Your task to perform on an android device: set default search engine in the chrome app Image 0: 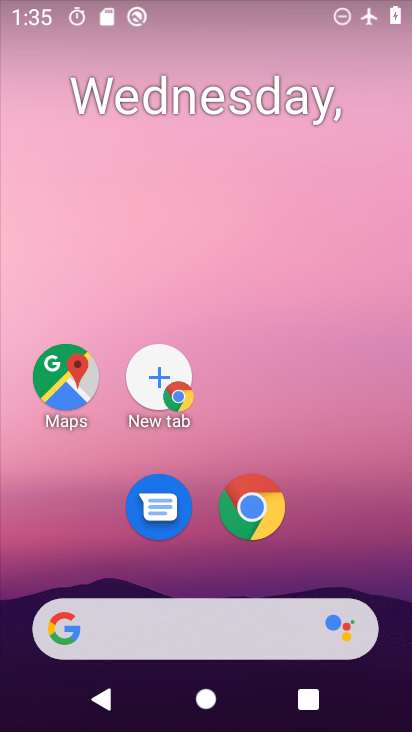
Step 0: drag from (373, 494) to (380, 117)
Your task to perform on an android device: set default search engine in the chrome app Image 1: 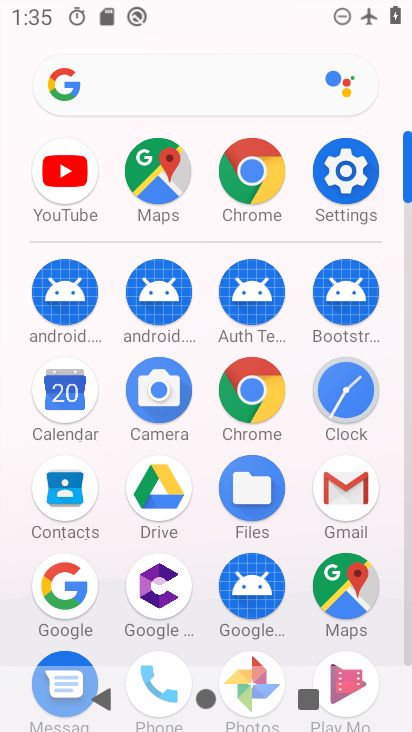
Step 1: click (222, 196)
Your task to perform on an android device: set default search engine in the chrome app Image 2: 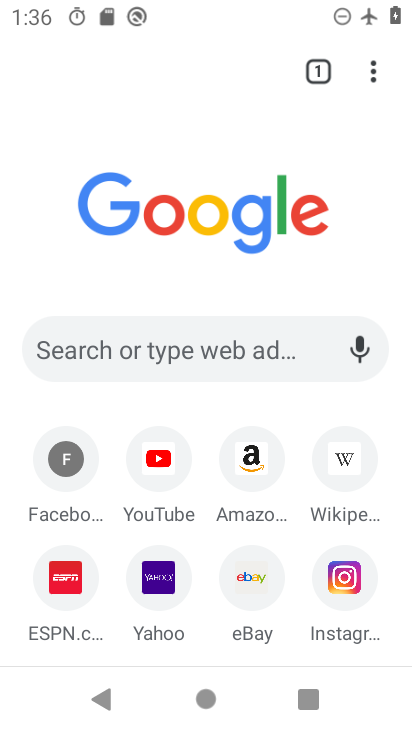
Step 2: drag from (375, 80) to (152, 507)
Your task to perform on an android device: set default search engine in the chrome app Image 3: 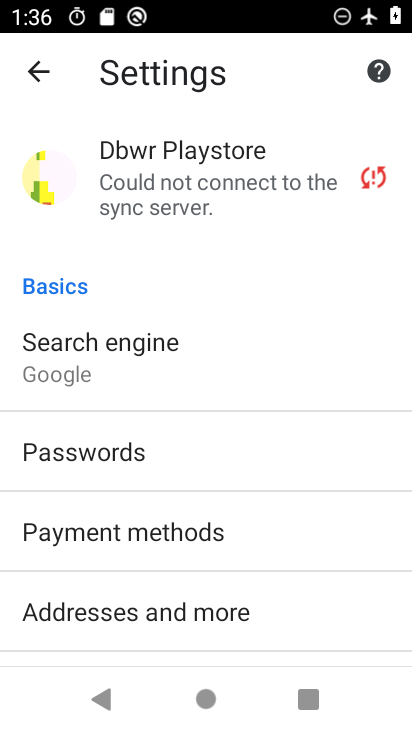
Step 3: click (99, 360)
Your task to perform on an android device: set default search engine in the chrome app Image 4: 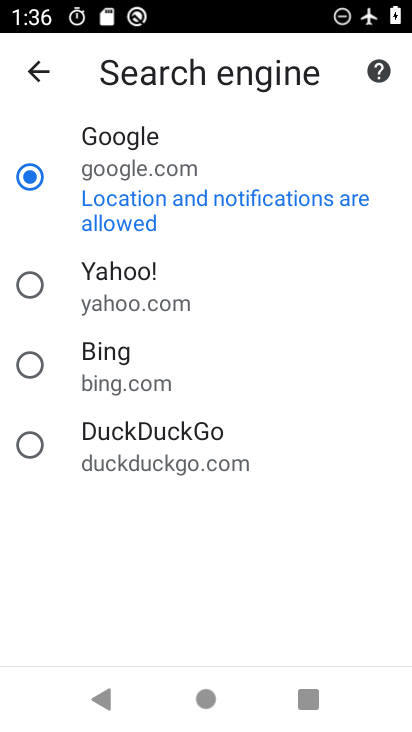
Step 4: task complete